Your task to perform on an android device: Show me recent news Image 0: 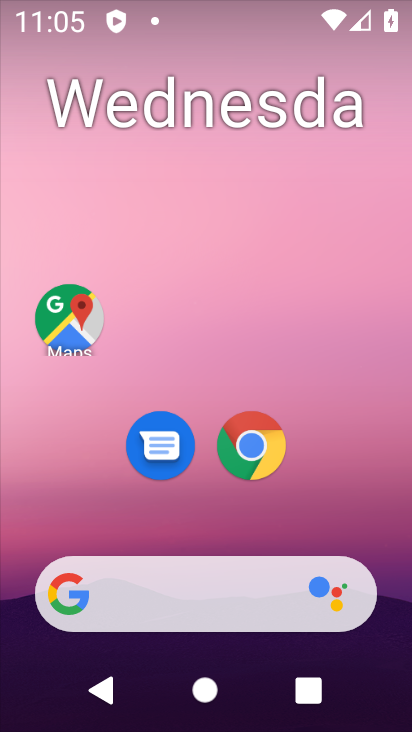
Step 0: drag from (261, 502) to (329, 130)
Your task to perform on an android device: Show me recent news Image 1: 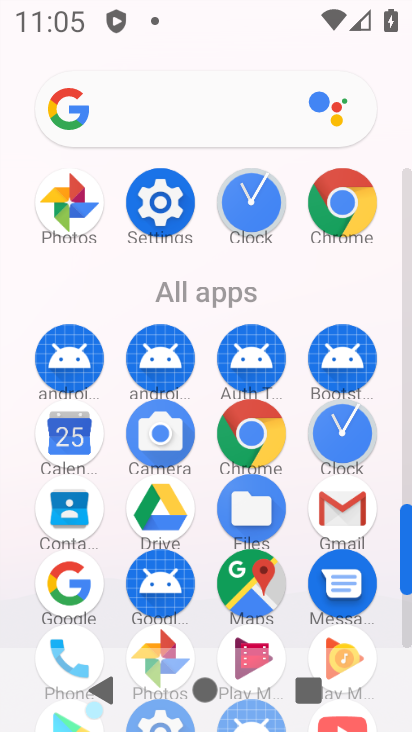
Step 1: click (247, 435)
Your task to perform on an android device: Show me recent news Image 2: 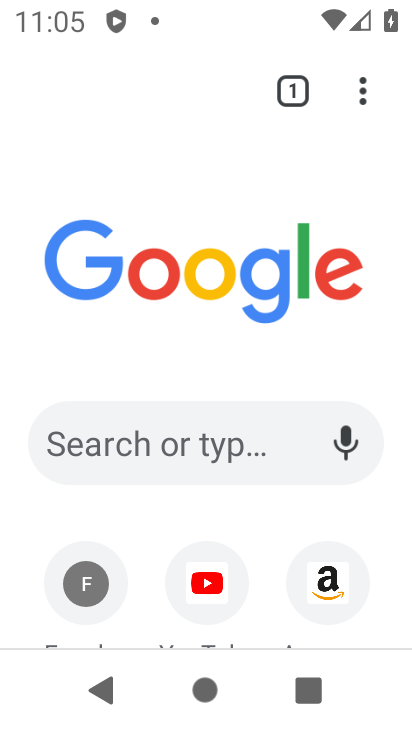
Step 2: click (208, 435)
Your task to perform on an android device: Show me recent news Image 3: 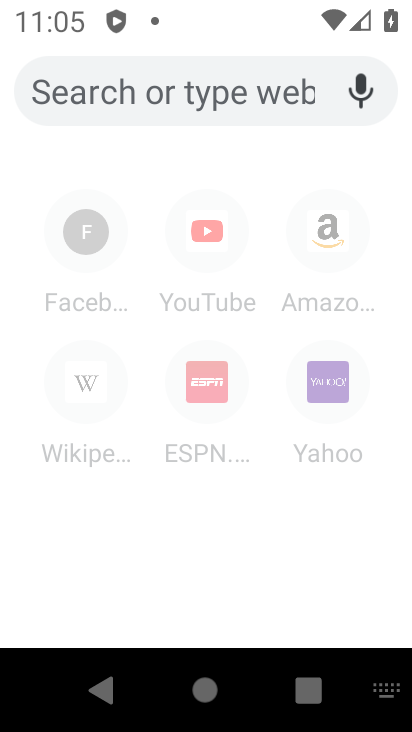
Step 3: type "show me recent news"
Your task to perform on an android device: Show me recent news Image 4: 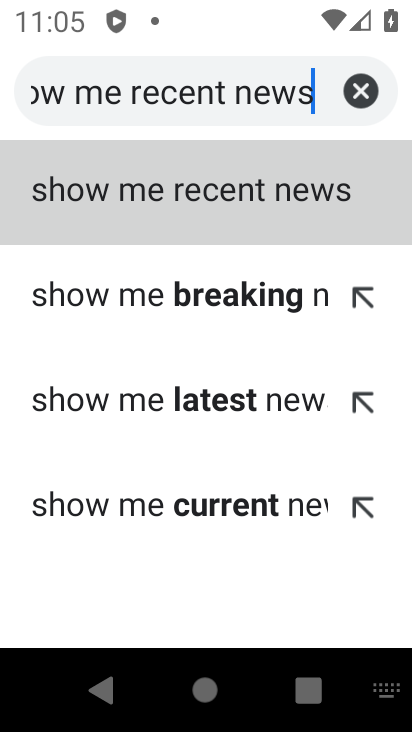
Step 4: click (165, 206)
Your task to perform on an android device: Show me recent news Image 5: 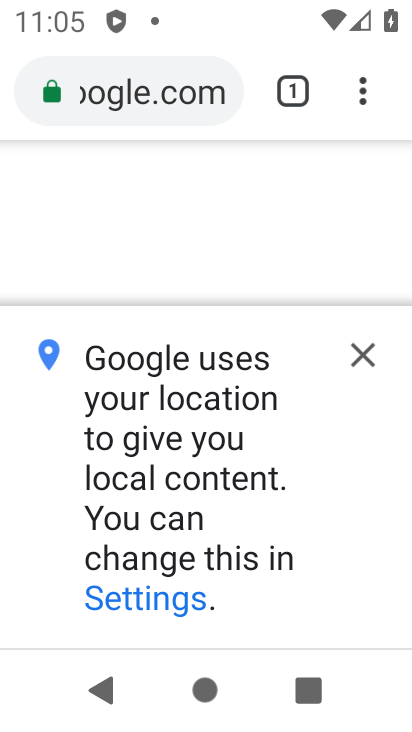
Step 5: click (359, 350)
Your task to perform on an android device: Show me recent news Image 6: 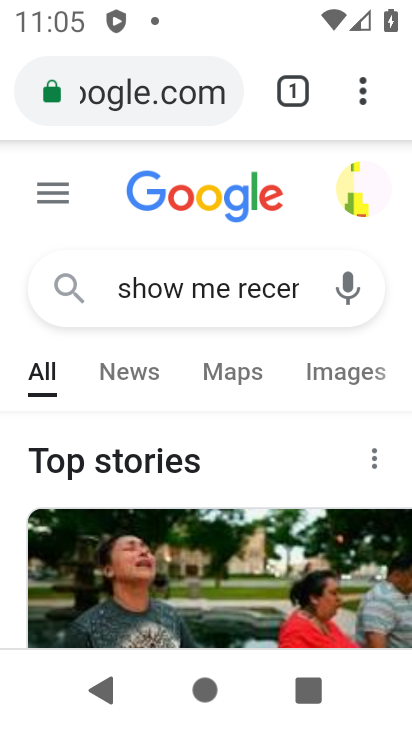
Step 6: task complete